Your task to perform on an android device: open chrome and create a bookmark for the current page Image 0: 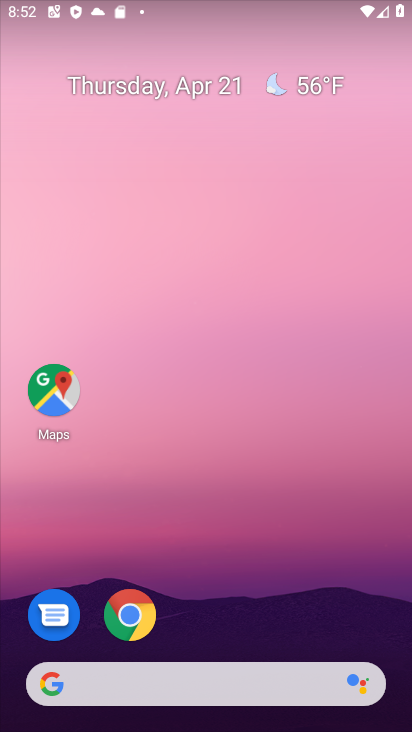
Step 0: drag from (248, 599) to (230, 111)
Your task to perform on an android device: open chrome and create a bookmark for the current page Image 1: 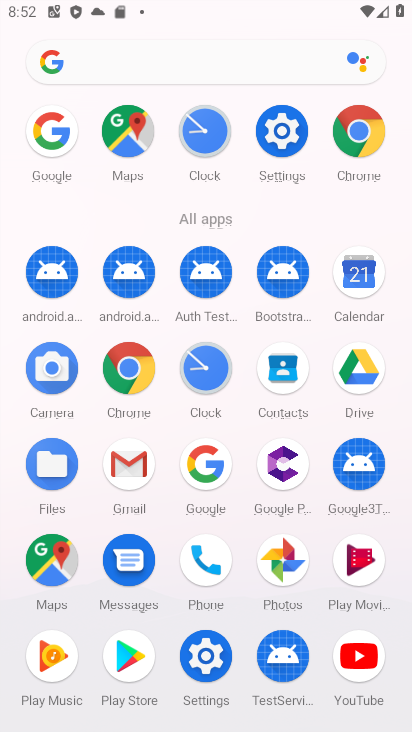
Step 1: click (358, 131)
Your task to perform on an android device: open chrome and create a bookmark for the current page Image 2: 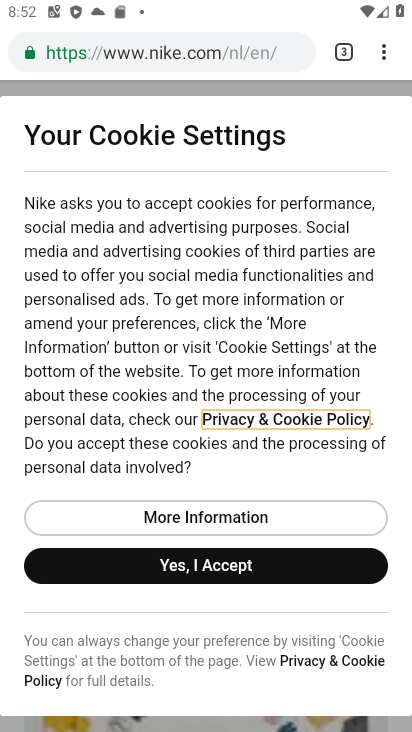
Step 2: click (272, 53)
Your task to perform on an android device: open chrome and create a bookmark for the current page Image 3: 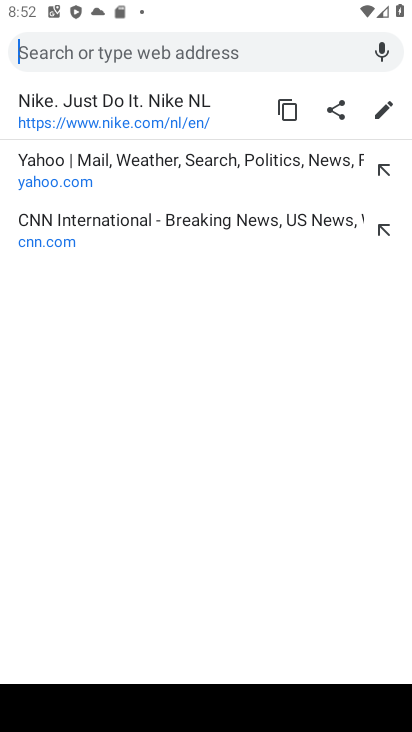
Step 3: type "oyo.com"
Your task to perform on an android device: open chrome and create a bookmark for the current page Image 4: 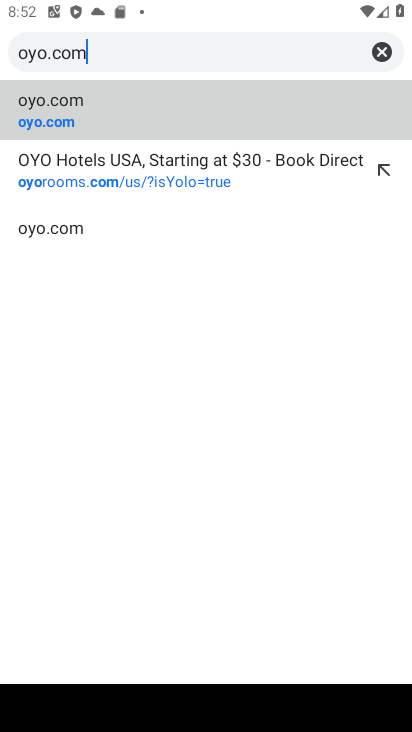
Step 4: click (148, 112)
Your task to perform on an android device: open chrome and create a bookmark for the current page Image 5: 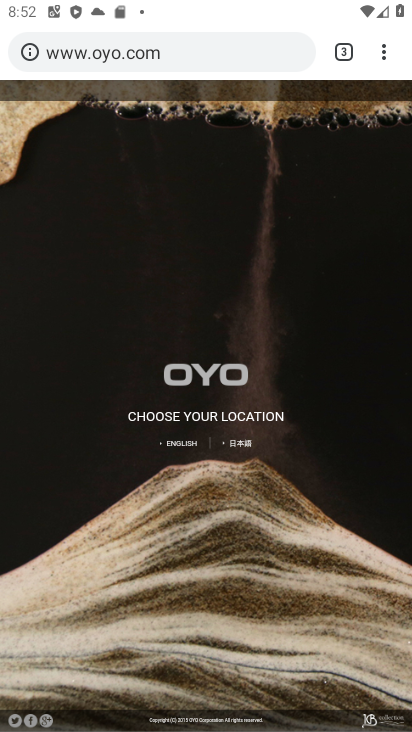
Step 5: click (380, 49)
Your task to perform on an android device: open chrome and create a bookmark for the current page Image 6: 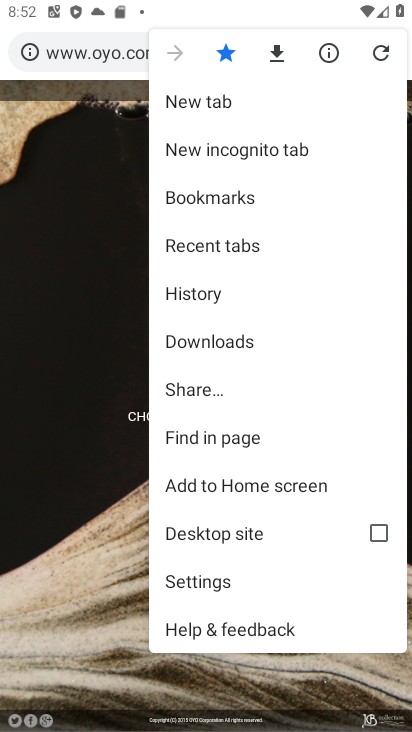
Step 6: task complete